Your task to perform on an android device: open device folders in google photos Image 0: 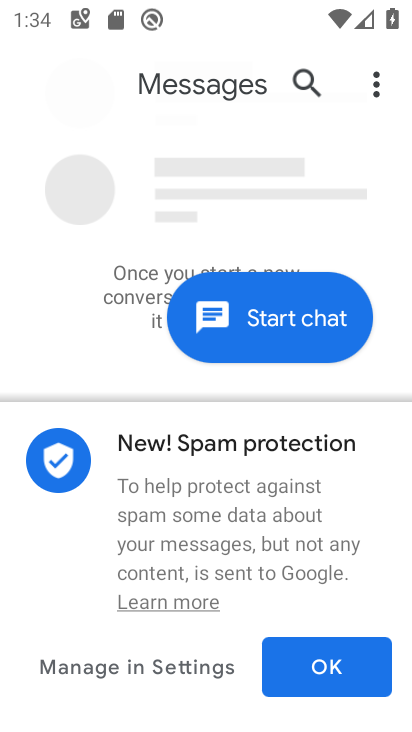
Step 0: press home button
Your task to perform on an android device: open device folders in google photos Image 1: 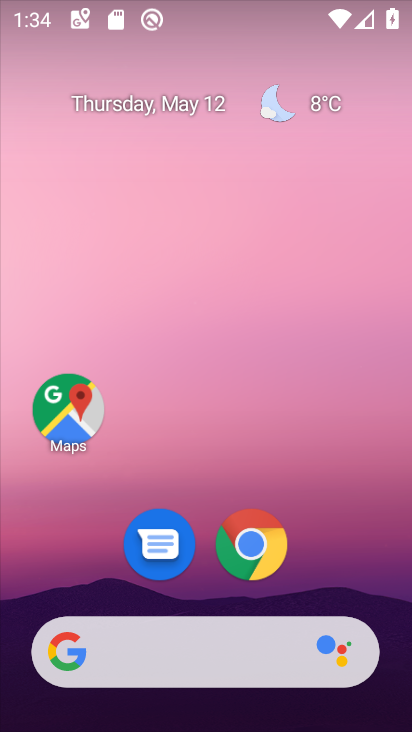
Step 1: drag from (207, 546) to (230, 116)
Your task to perform on an android device: open device folders in google photos Image 2: 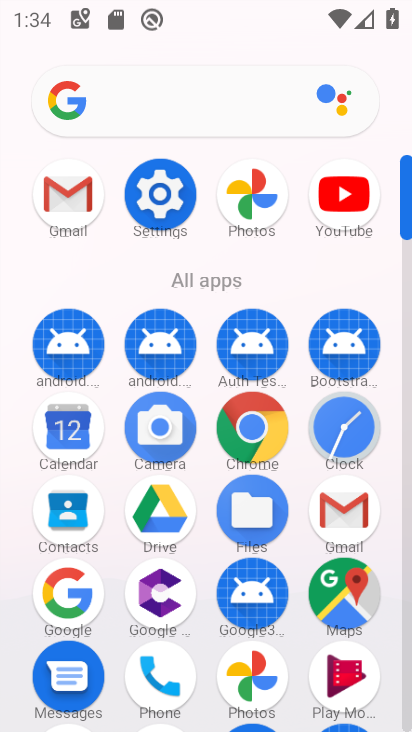
Step 2: click (243, 192)
Your task to perform on an android device: open device folders in google photos Image 3: 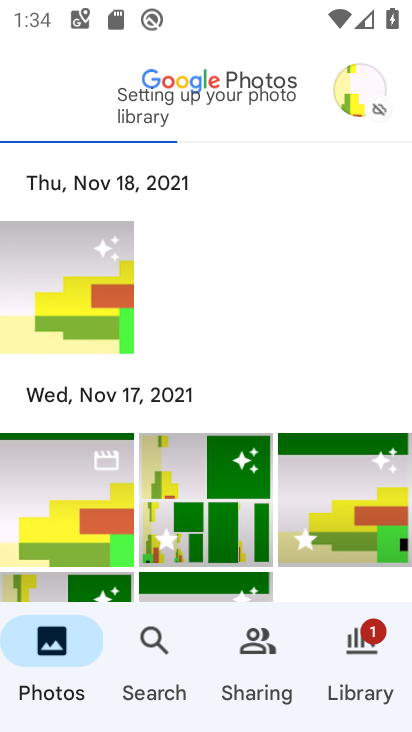
Step 3: click (38, 97)
Your task to perform on an android device: open device folders in google photos Image 4: 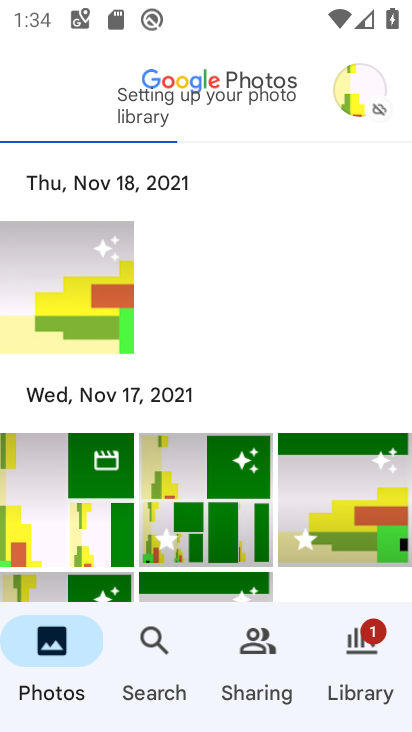
Step 4: click (343, 88)
Your task to perform on an android device: open device folders in google photos Image 5: 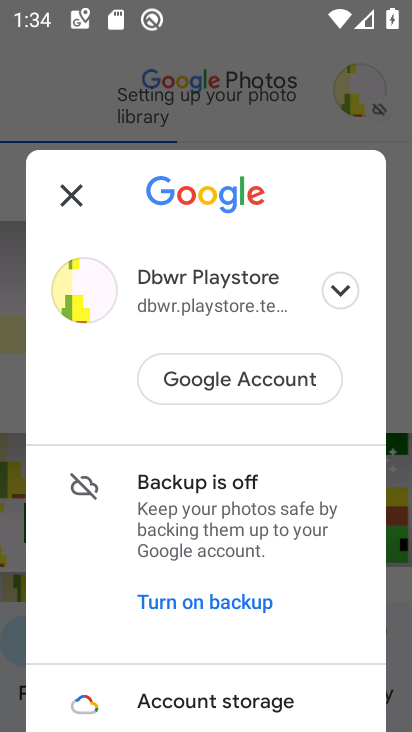
Step 5: drag from (220, 637) to (254, 273)
Your task to perform on an android device: open device folders in google photos Image 6: 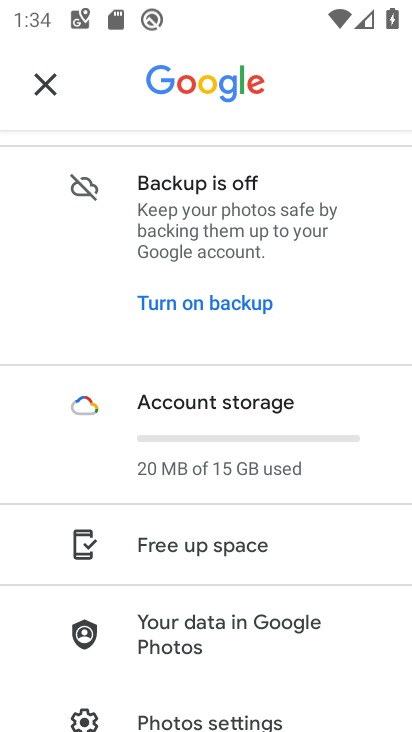
Step 6: drag from (230, 569) to (282, 303)
Your task to perform on an android device: open device folders in google photos Image 7: 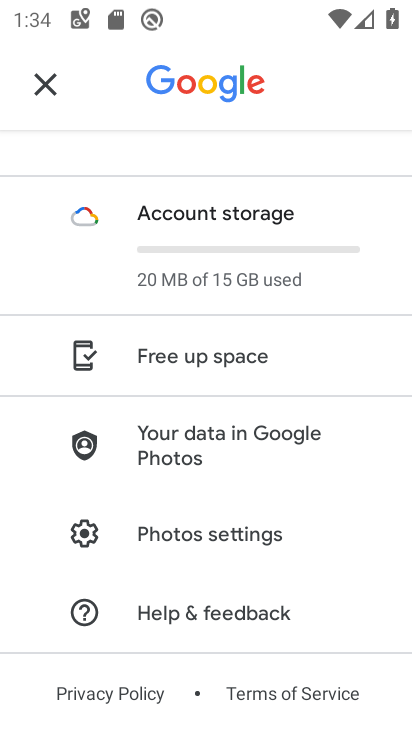
Step 7: click (50, 82)
Your task to perform on an android device: open device folders in google photos Image 8: 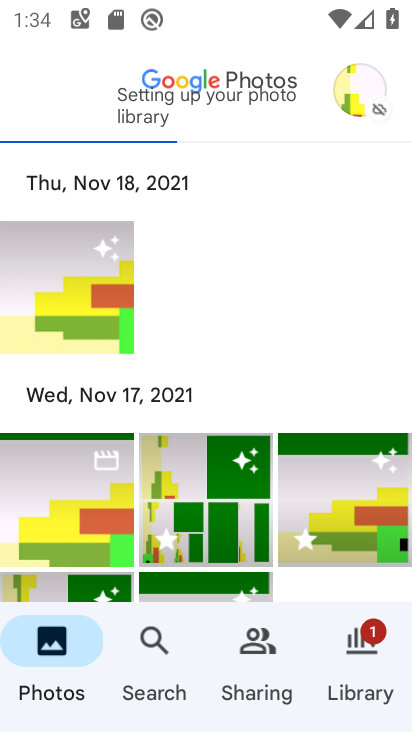
Step 8: task complete